Your task to perform on an android device: turn off sleep mode Image 0: 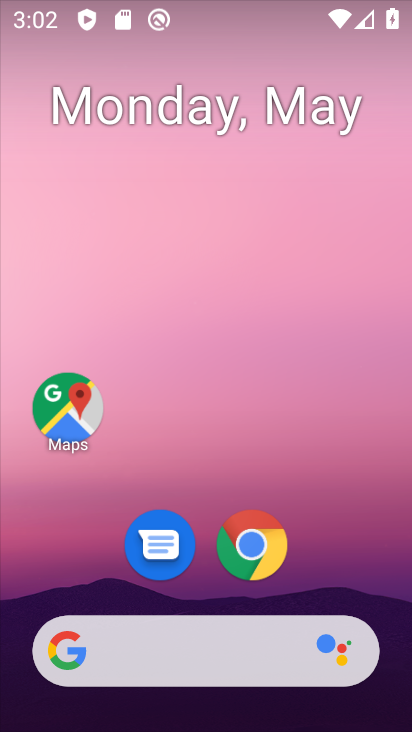
Step 0: drag from (331, 381) to (319, 115)
Your task to perform on an android device: turn off sleep mode Image 1: 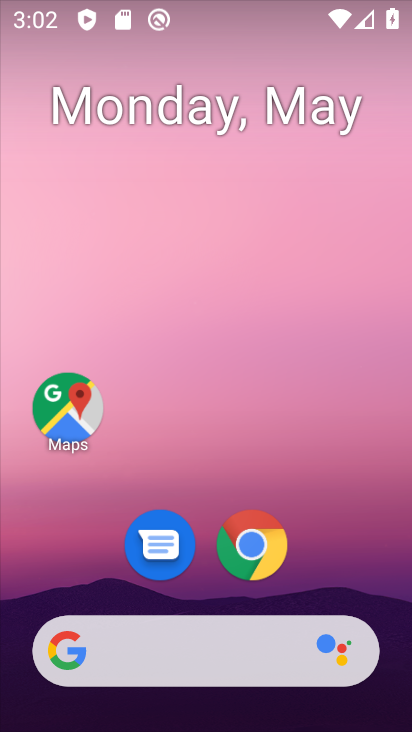
Step 1: drag from (341, 557) to (348, 161)
Your task to perform on an android device: turn off sleep mode Image 2: 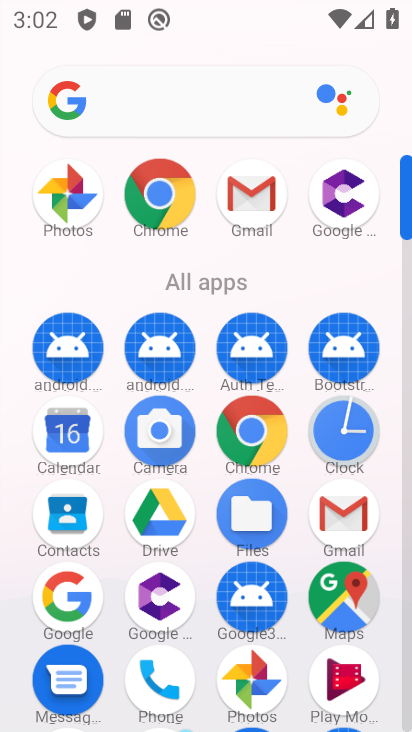
Step 2: drag from (118, 593) to (149, 195)
Your task to perform on an android device: turn off sleep mode Image 3: 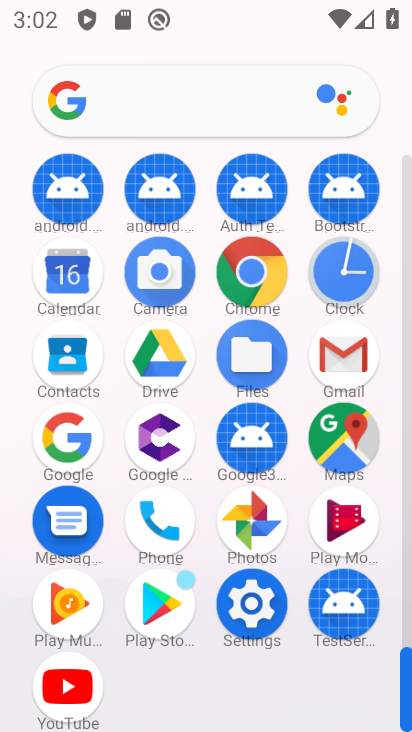
Step 3: click (256, 628)
Your task to perform on an android device: turn off sleep mode Image 4: 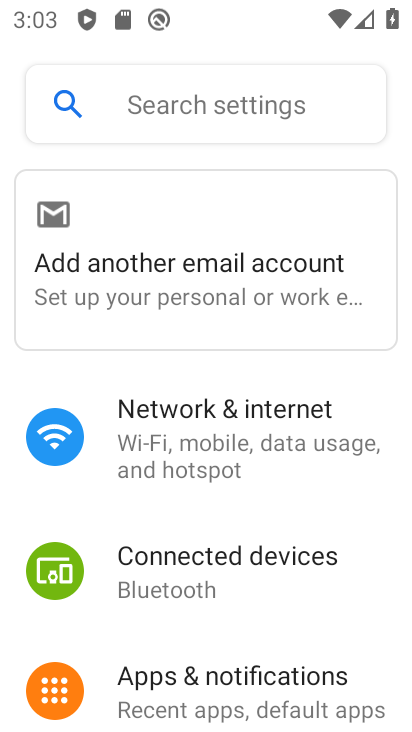
Step 4: drag from (276, 628) to (307, 246)
Your task to perform on an android device: turn off sleep mode Image 5: 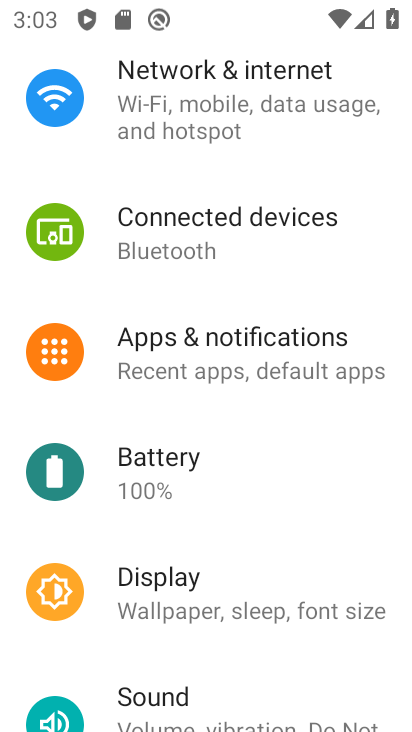
Step 5: click (270, 585)
Your task to perform on an android device: turn off sleep mode Image 6: 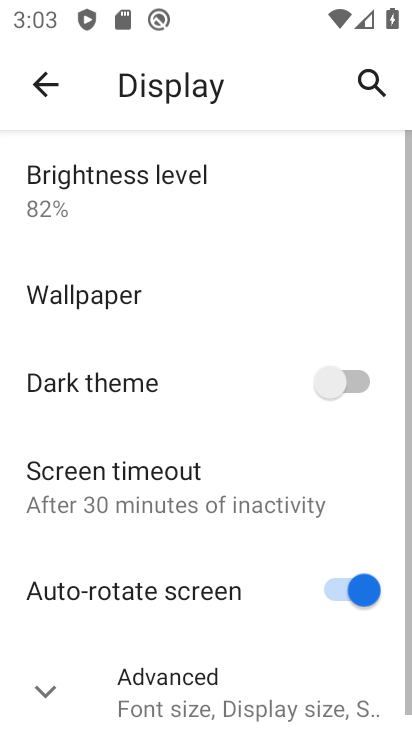
Step 6: drag from (124, 658) to (147, 343)
Your task to perform on an android device: turn off sleep mode Image 7: 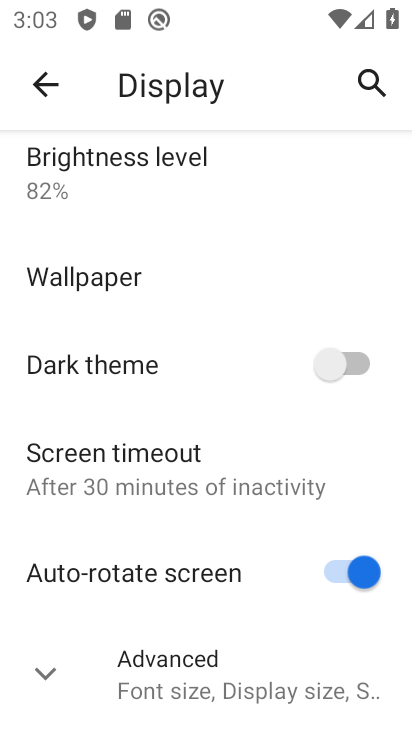
Step 7: click (49, 673)
Your task to perform on an android device: turn off sleep mode Image 8: 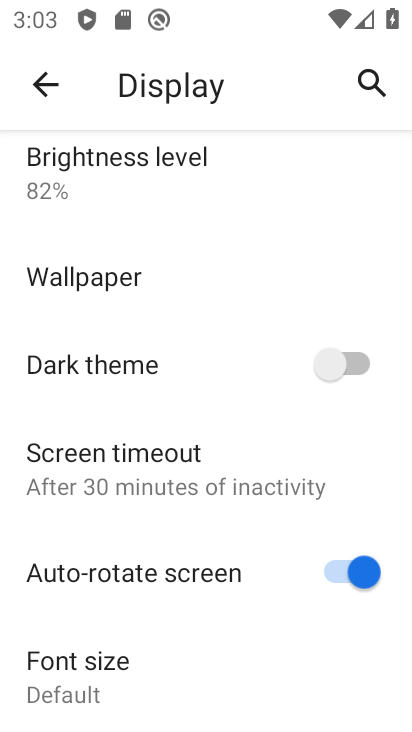
Step 8: task complete